Your task to perform on an android device: Go to privacy settings Image 0: 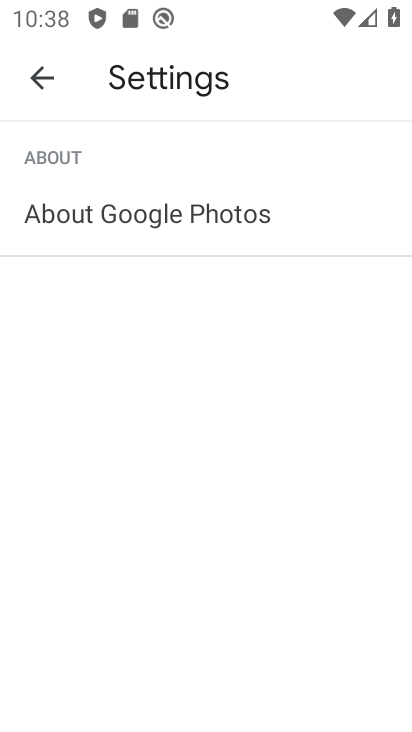
Step 0: press home button
Your task to perform on an android device: Go to privacy settings Image 1: 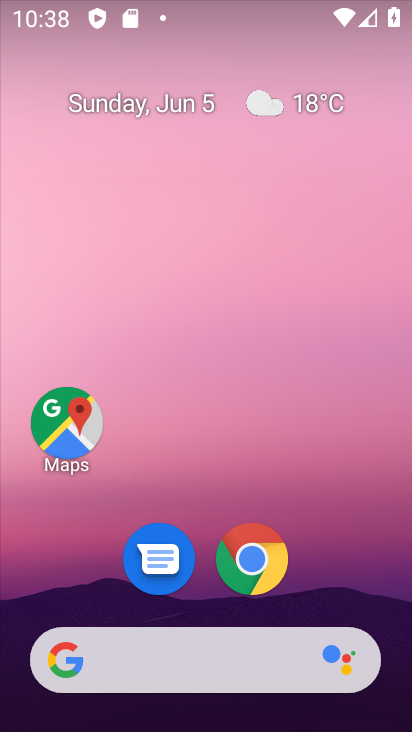
Step 1: drag from (385, 604) to (332, 180)
Your task to perform on an android device: Go to privacy settings Image 2: 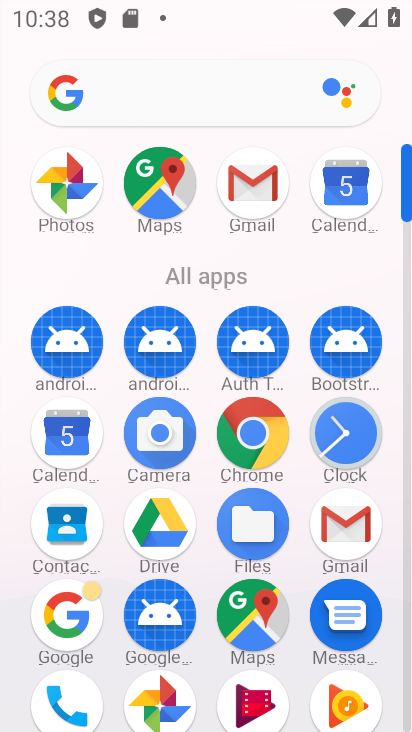
Step 2: click (408, 640)
Your task to perform on an android device: Go to privacy settings Image 3: 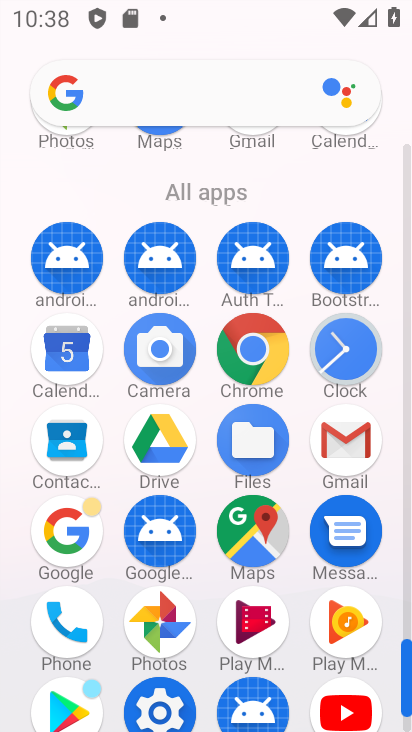
Step 3: click (166, 702)
Your task to perform on an android device: Go to privacy settings Image 4: 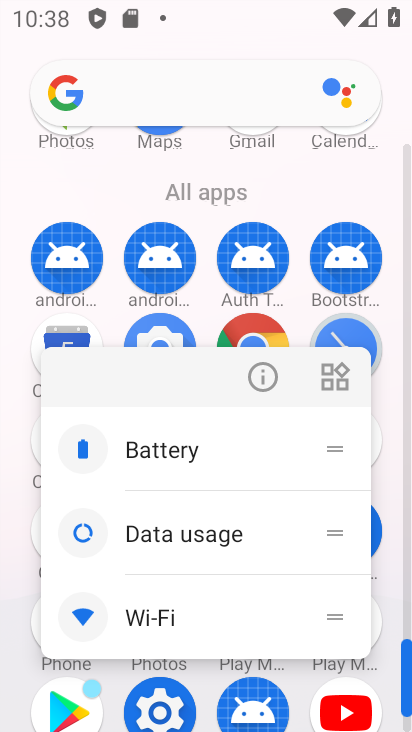
Step 4: click (166, 702)
Your task to perform on an android device: Go to privacy settings Image 5: 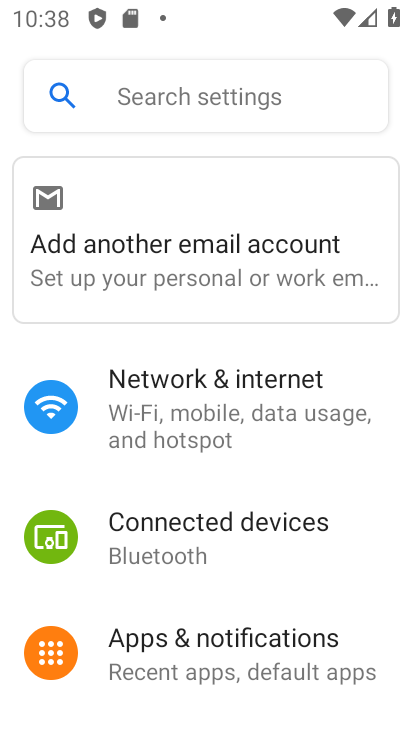
Step 5: drag from (310, 673) to (309, 313)
Your task to perform on an android device: Go to privacy settings Image 6: 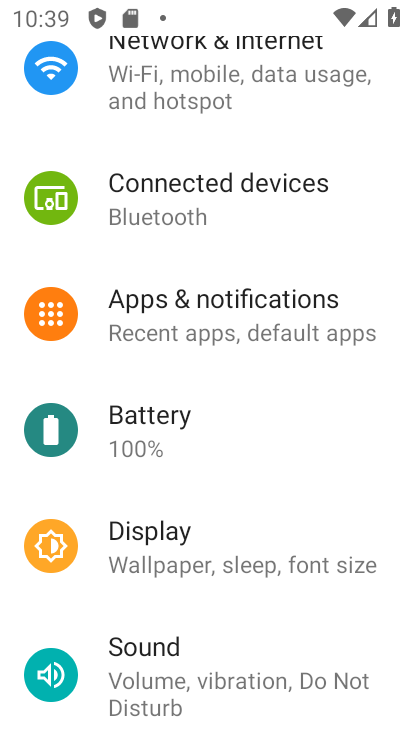
Step 6: drag from (326, 695) to (275, 410)
Your task to perform on an android device: Go to privacy settings Image 7: 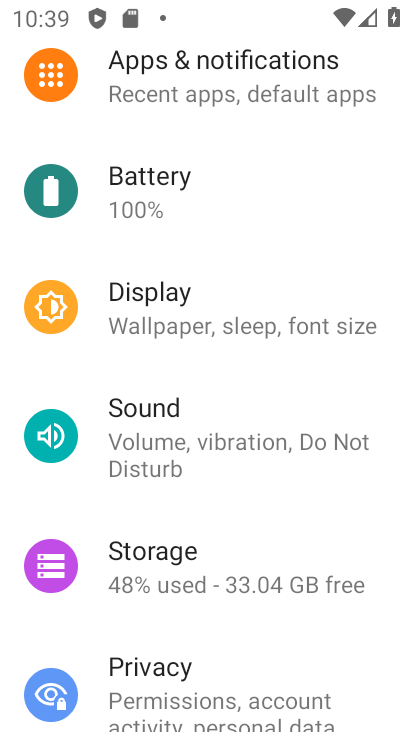
Step 7: click (292, 680)
Your task to perform on an android device: Go to privacy settings Image 8: 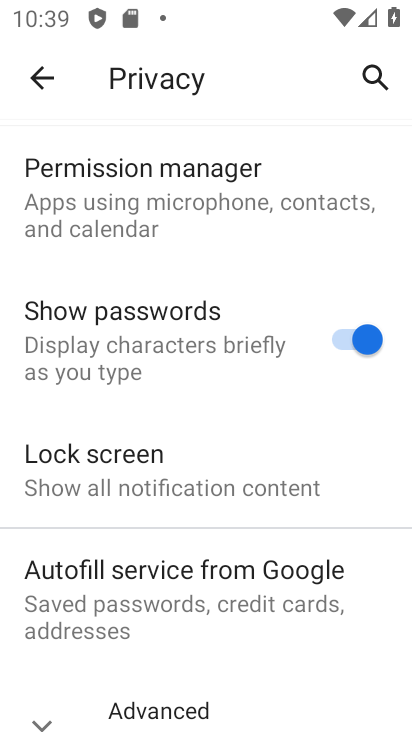
Step 8: task complete